Your task to perform on an android device: move an email to a new category in the gmail app Image 0: 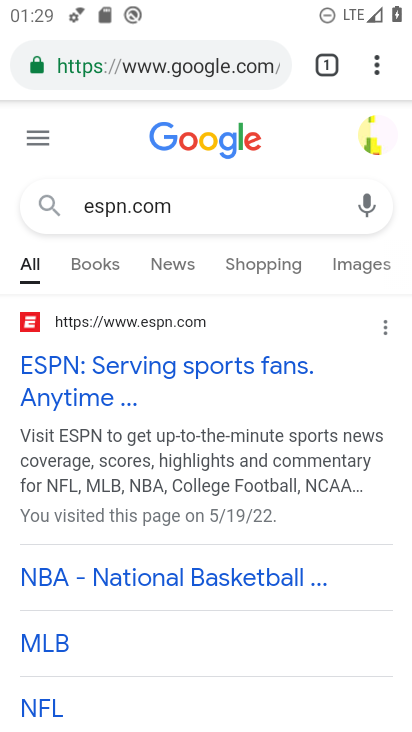
Step 0: press home button
Your task to perform on an android device: move an email to a new category in the gmail app Image 1: 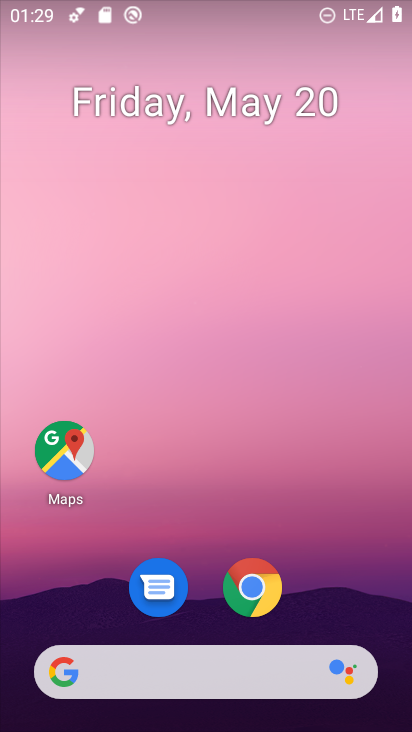
Step 1: drag from (364, 603) to (342, 215)
Your task to perform on an android device: move an email to a new category in the gmail app Image 2: 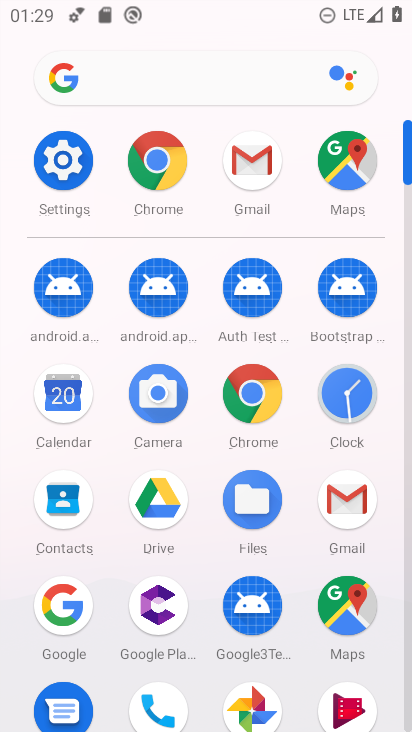
Step 2: click (341, 514)
Your task to perform on an android device: move an email to a new category in the gmail app Image 3: 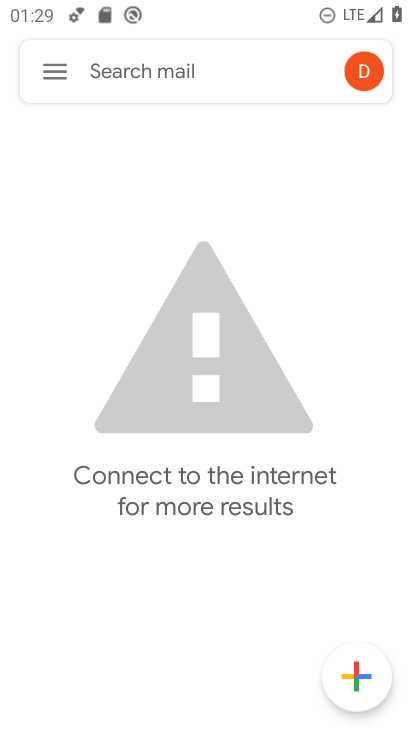
Step 3: click (53, 63)
Your task to perform on an android device: move an email to a new category in the gmail app Image 4: 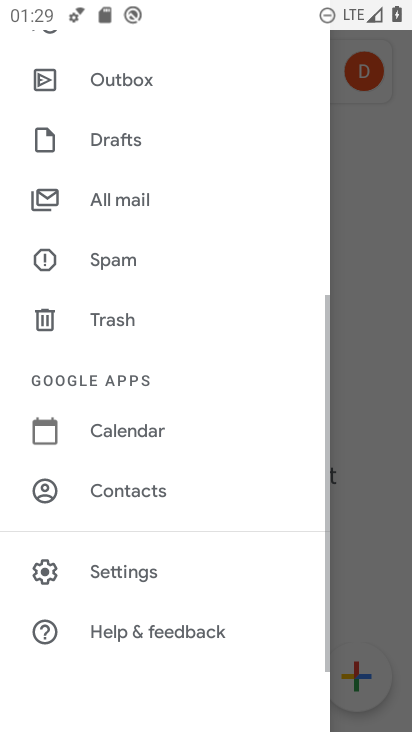
Step 4: drag from (254, 525) to (257, 327)
Your task to perform on an android device: move an email to a new category in the gmail app Image 5: 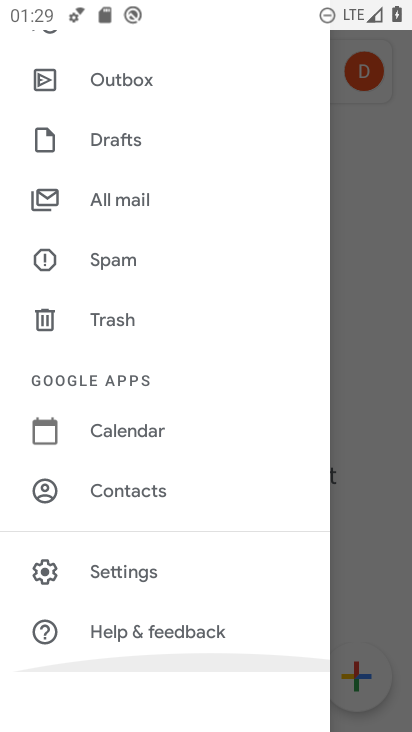
Step 5: drag from (259, 214) to (242, 443)
Your task to perform on an android device: move an email to a new category in the gmail app Image 6: 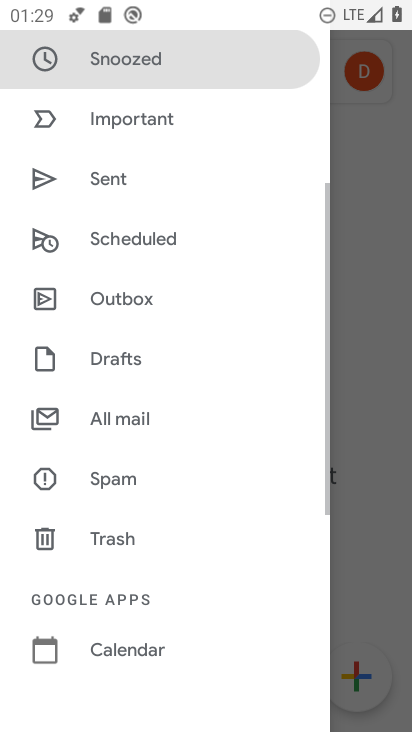
Step 6: drag from (236, 225) to (224, 418)
Your task to perform on an android device: move an email to a new category in the gmail app Image 7: 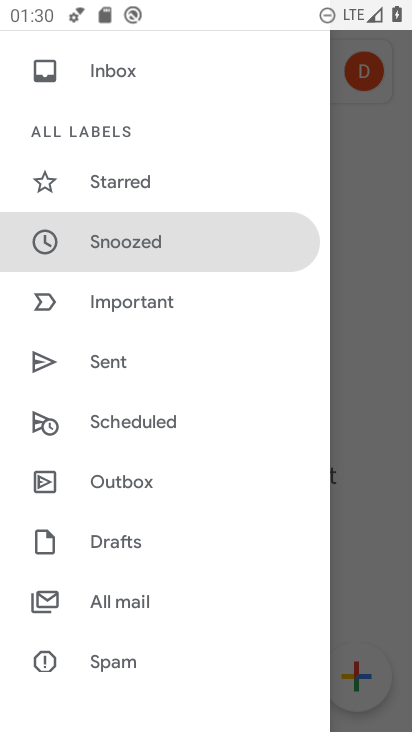
Step 7: drag from (221, 139) to (230, 425)
Your task to perform on an android device: move an email to a new category in the gmail app Image 8: 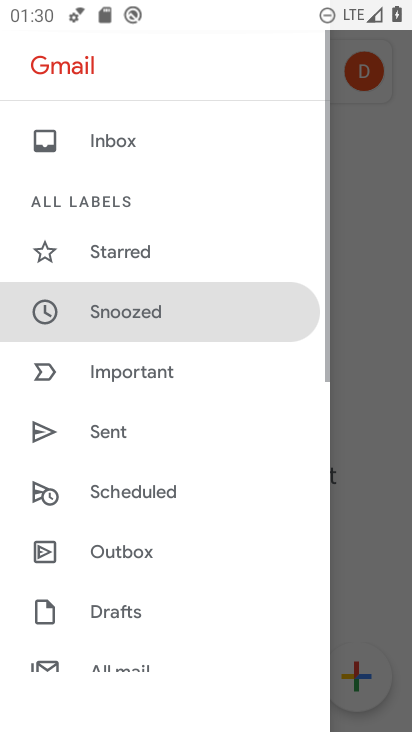
Step 8: drag from (211, 163) to (211, 423)
Your task to perform on an android device: move an email to a new category in the gmail app Image 9: 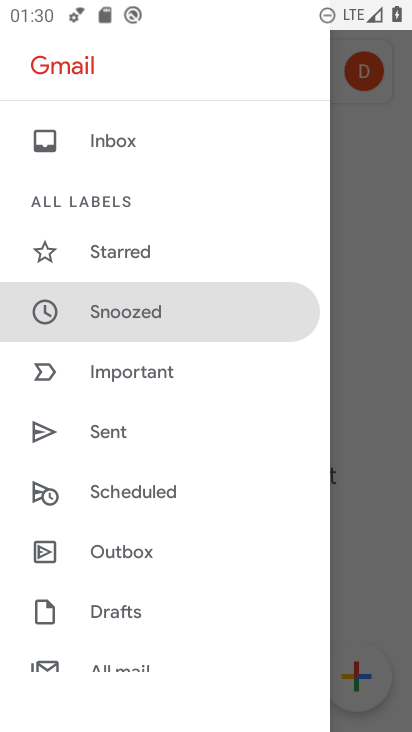
Step 9: drag from (224, 584) to (227, 423)
Your task to perform on an android device: move an email to a new category in the gmail app Image 10: 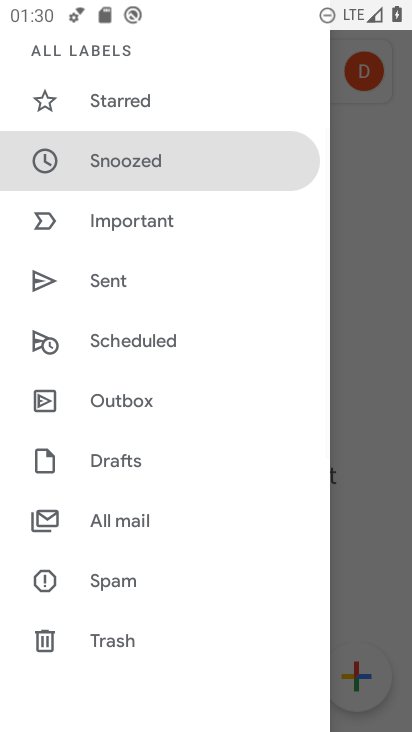
Step 10: drag from (236, 582) to (240, 395)
Your task to perform on an android device: move an email to a new category in the gmail app Image 11: 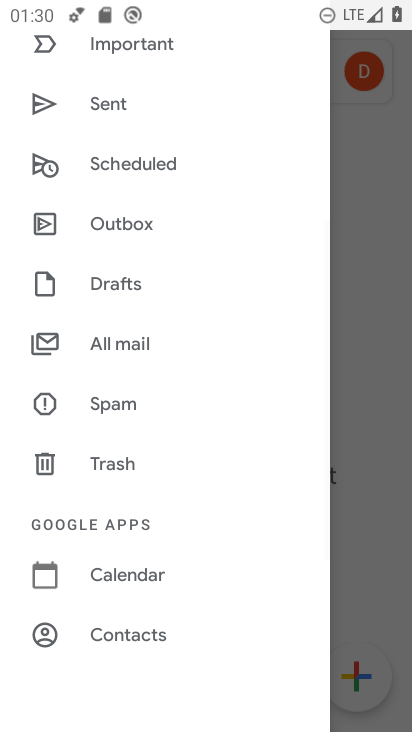
Step 11: drag from (256, 604) to (254, 434)
Your task to perform on an android device: move an email to a new category in the gmail app Image 12: 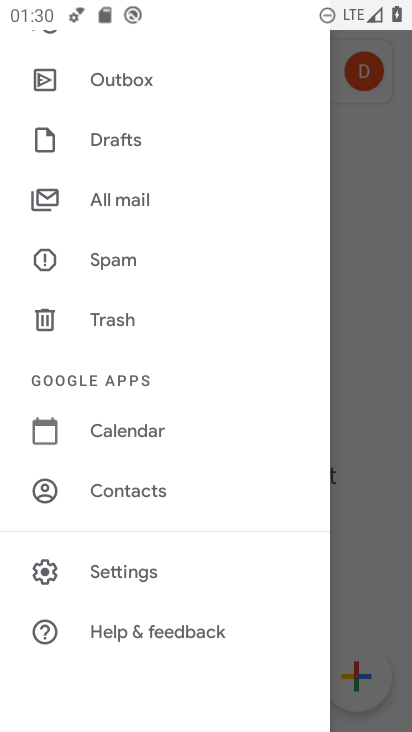
Step 12: drag from (244, 607) to (247, 443)
Your task to perform on an android device: move an email to a new category in the gmail app Image 13: 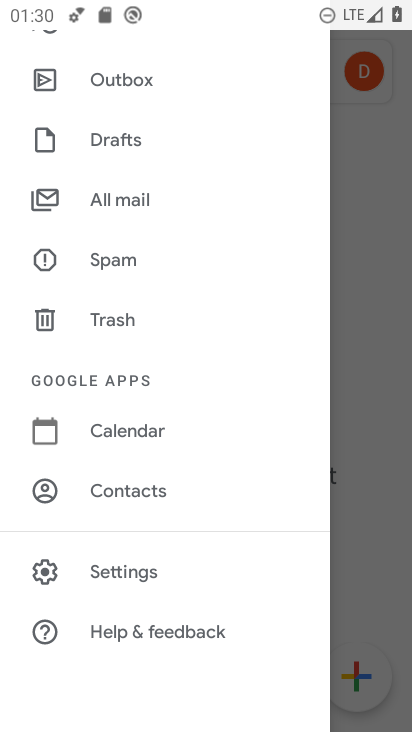
Step 13: drag from (246, 275) to (247, 493)
Your task to perform on an android device: move an email to a new category in the gmail app Image 14: 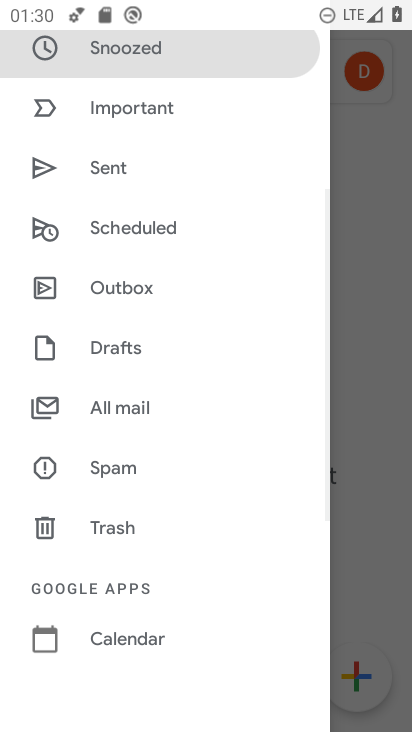
Step 14: drag from (220, 257) to (223, 453)
Your task to perform on an android device: move an email to a new category in the gmail app Image 15: 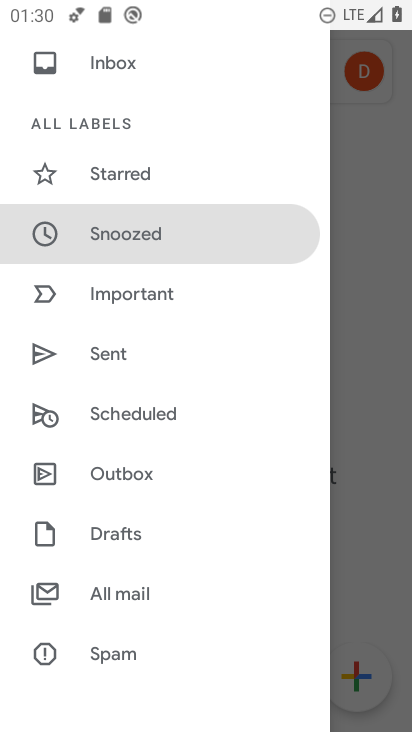
Step 15: drag from (232, 236) to (234, 492)
Your task to perform on an android device: move an email to a new category in the gmail app Image 16: 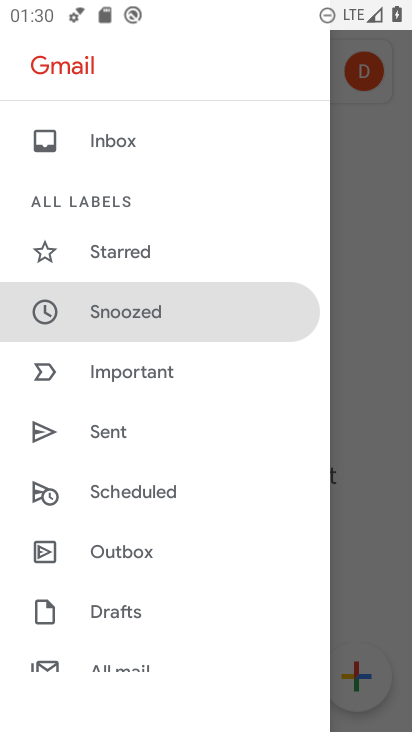
Step 16: click (107, 127)
Your task to perform on an android device: move an email to a new category in the gmail app Image 17: 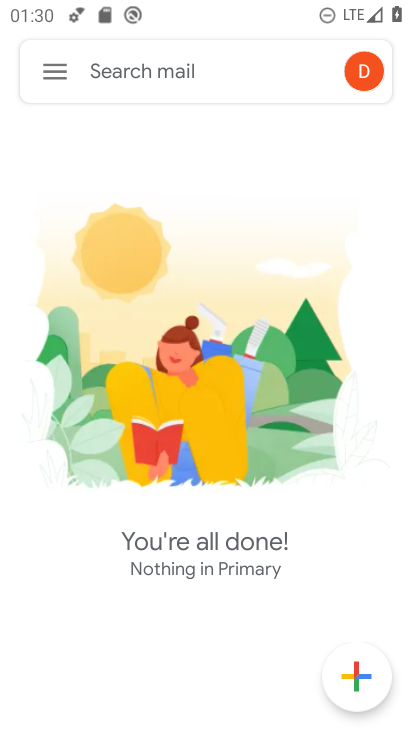
Step 17: task complete